Your task to perform on an android device: Open Wikipedia Image 0: 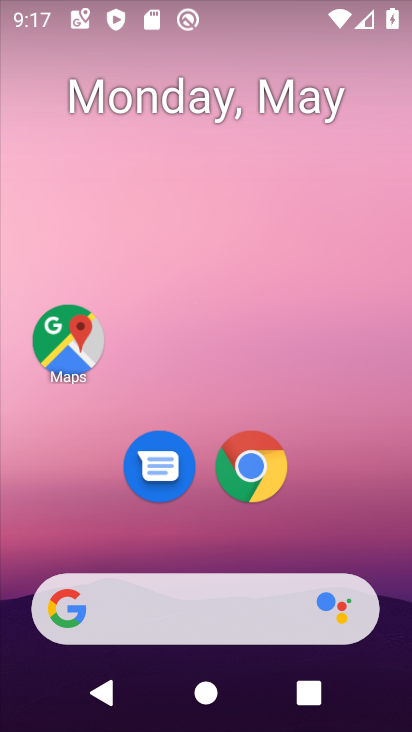
Step 0: drag from (261, 645) to (269, 85)
Your task to perform on an android device: Open Wikipedia Image 1: 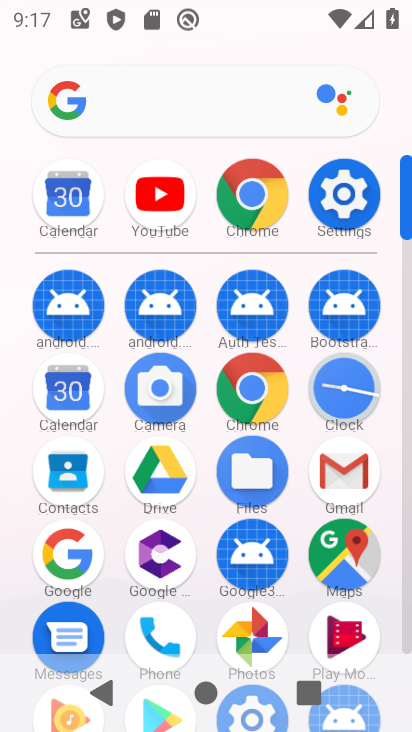
Step 1: click (328, 211)
Your task to perform on an android device: Open Wikipedia Image 2: 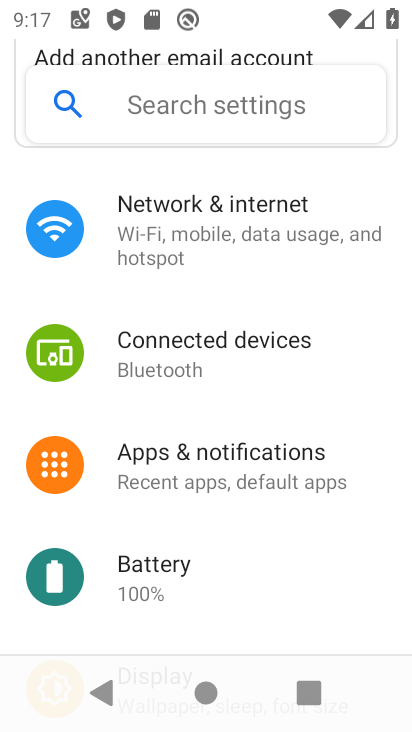
Step 2: press home button
Your task to perform on an android device: Open Wikipedia Image 3: 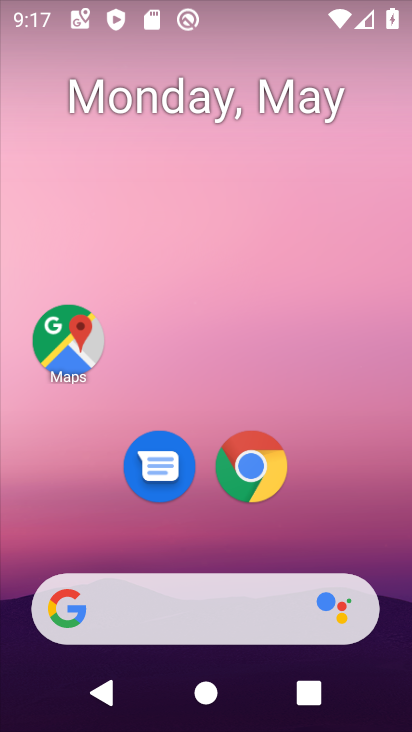
Step 3: click (263, 487)
Your task to perform on an android device: Open Wikipedia Image 4: 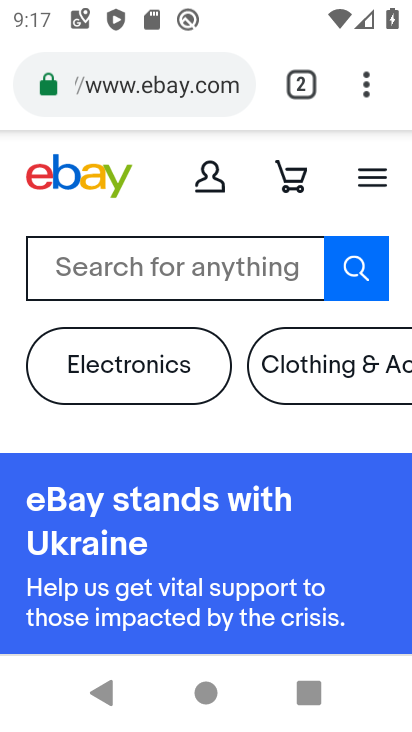
Step 4: click (358, 80)
Your task to perform on an android device: Open Wikipedia Image 5: 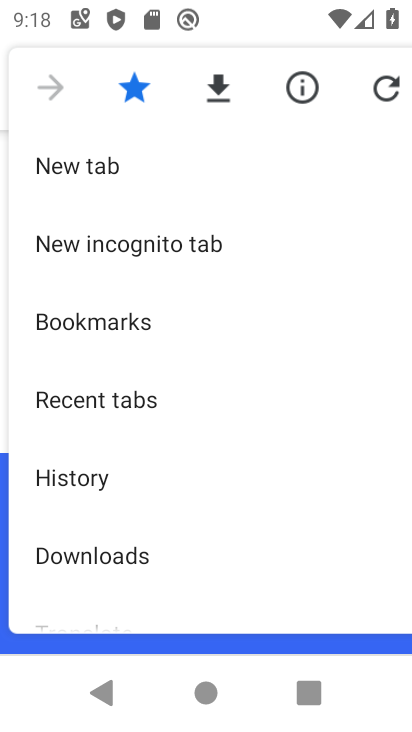
Step 5: click (97, 158)
Your task to perform on an android device: Open Wikipedia Image 6: 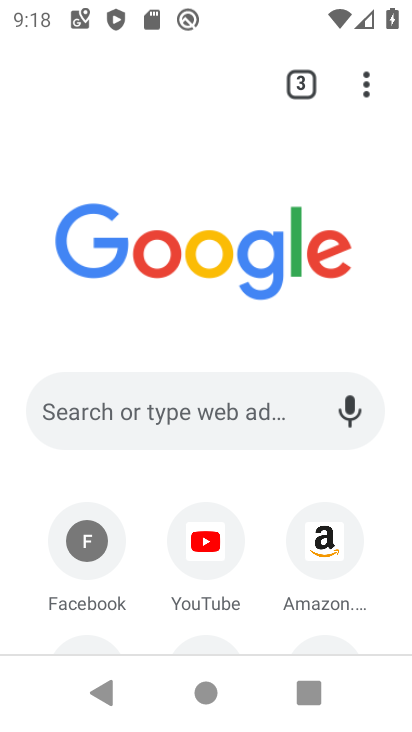
Step 6: drag from (157, 298) to (166, 169)
Your task to perform on an android device: Open Wikipedia Image 7: 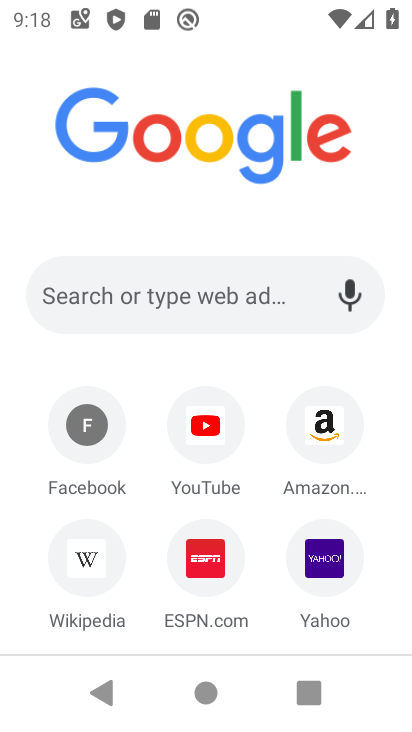
Step 7: click (85, 584)
Your task to perform on an android device: Open Wikipedia Image 8: 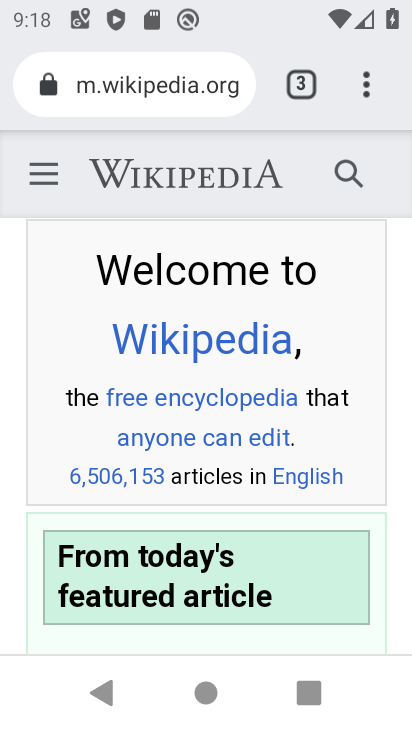
Step 8: task complete